Your task to perform on an android device: Search for sushi restaurants on Maps Image 0: 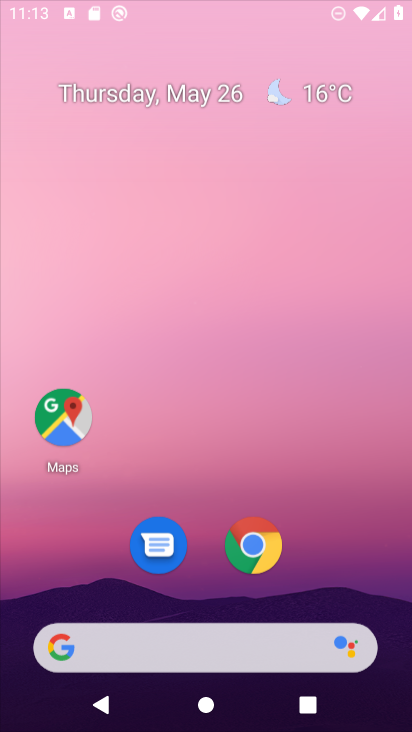
Step 0: press home button
Your task to perform on an android device: Search for sushi restaurants on Maps Image 1: 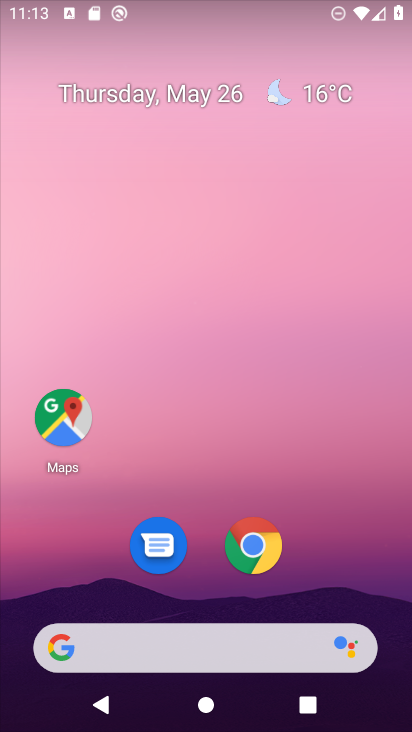
Step 1: click (34, 375)
Your task to perform on an android device: Search for sushi restaurants on Maps Image 2: 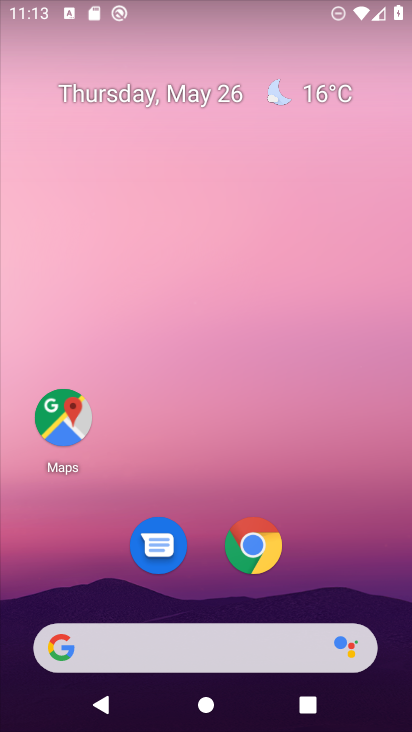
Step 2: click (76, 419)
Your task to perform on an android device: Search for sushi restaurants on Maps Image 3: 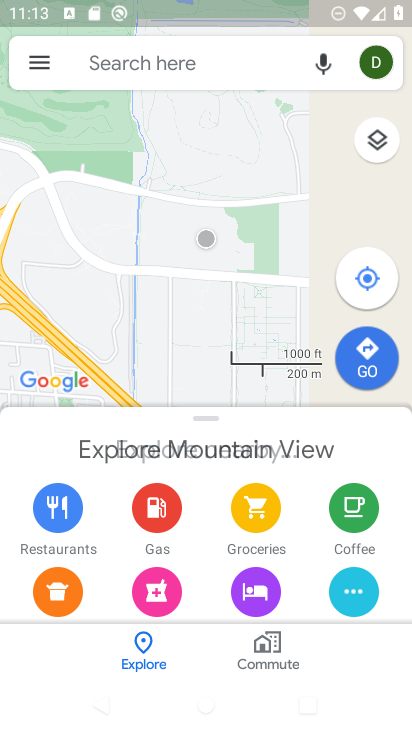
Step 3: click (147, 77)
Your task to perform on an android device: Search for sushi restaurants on Maps Image 4: 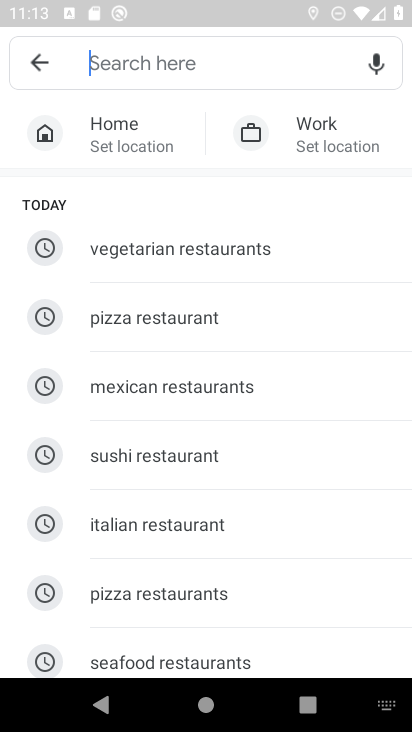
Step 4: click (148, 463)
Your task to perform on an android device: Search for sushi restaurants on Maps Image 5: 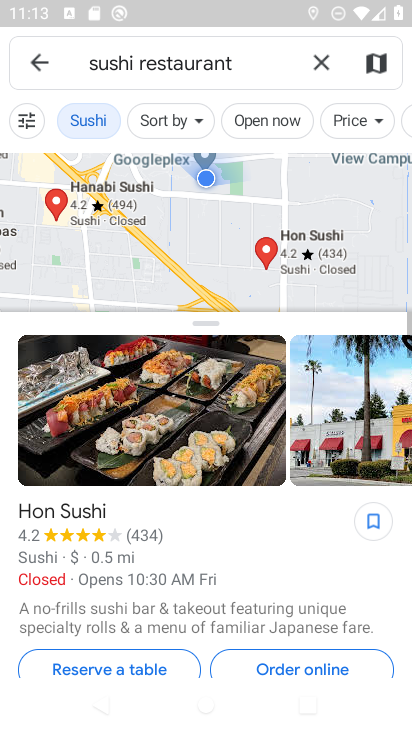
Step 5: task complete